Your task to perform on an android device: open chrome privacy settings Image 0: 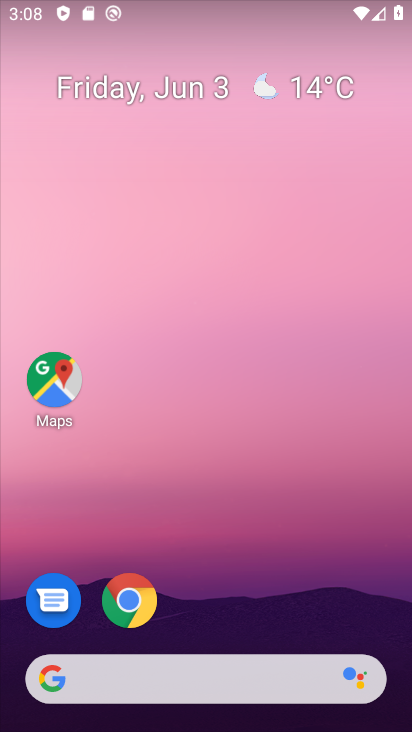
Step 0: click (141, 607)
Your task to perform on an android device: open chrome privacy settings Image 1: 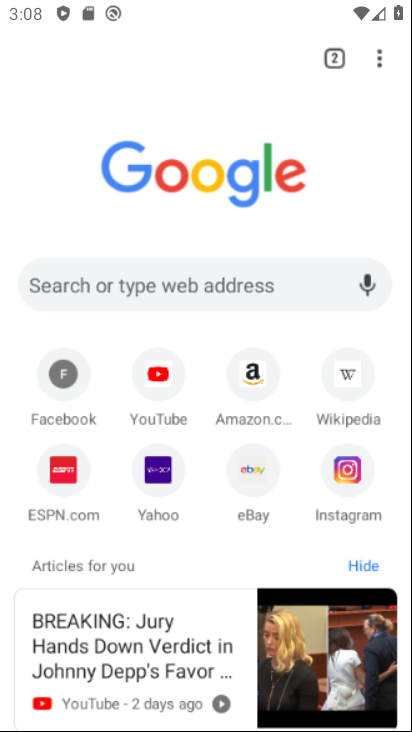
Step 1: drag from (387, 56) to (232, 483)
Your task to perform on an android device: open chrome privacy settings Image 2: 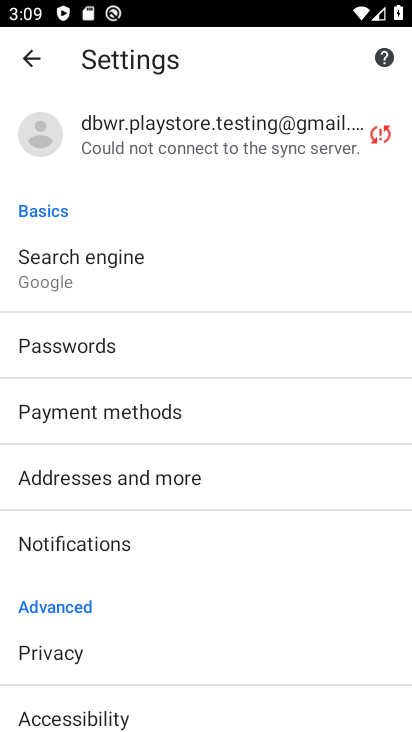
Step 2: drag from (114, 589) to (270, 316)
Your task to perform on an android device: open chrome privacy settings Image 3: 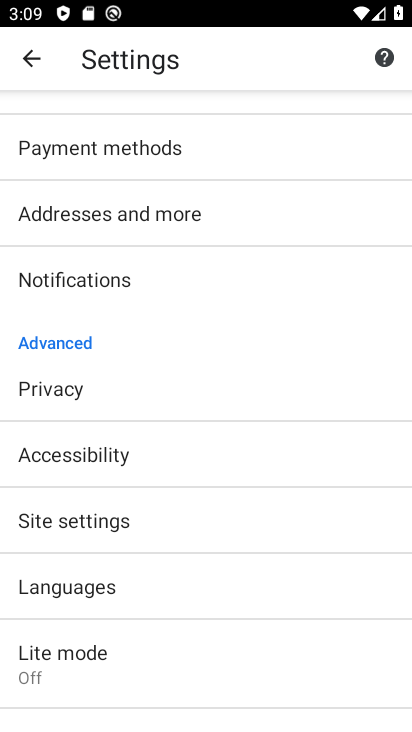
Step 3: click (93, 388)
Your task to perform on an android device: open chrome privacy settings Image 4: 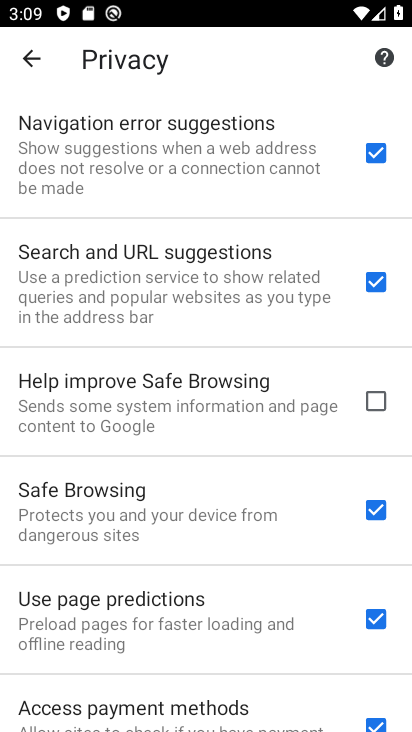
Step 4: task complete